Your task to perform on an android device: Is it going to rain tomorrow? Image 0: 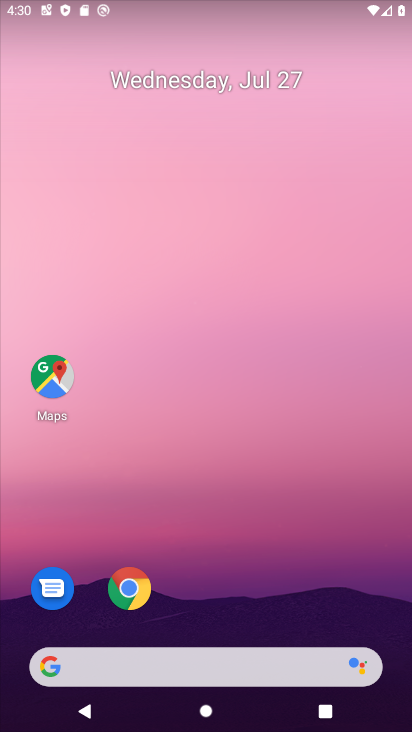
Step 0: drag from (220, 656) to (219, 61)
Your task to perform on an android device: Is it going to rain tomorrow? Image 1: 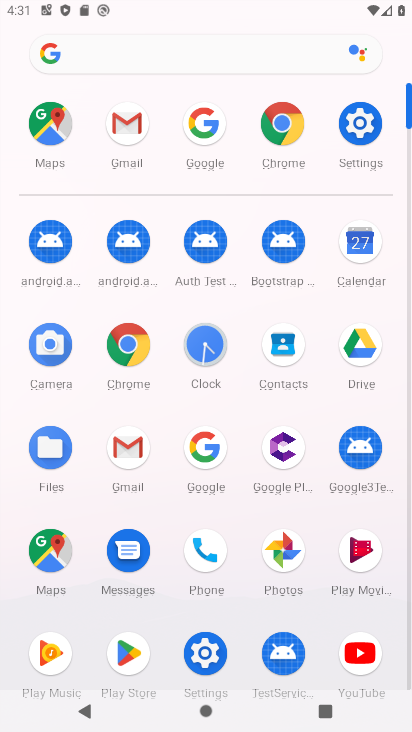
Step 1: click (198, 441)
Your task to perform on an android device: Is it going to rain tomorrow? Image 2: 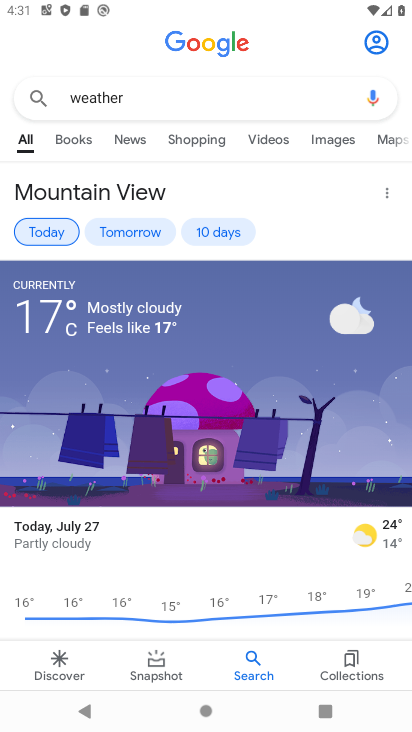
Step 2: click (126, 223)
Your task to perform on an android device: Is it going to rain tomorrow? Image 3: 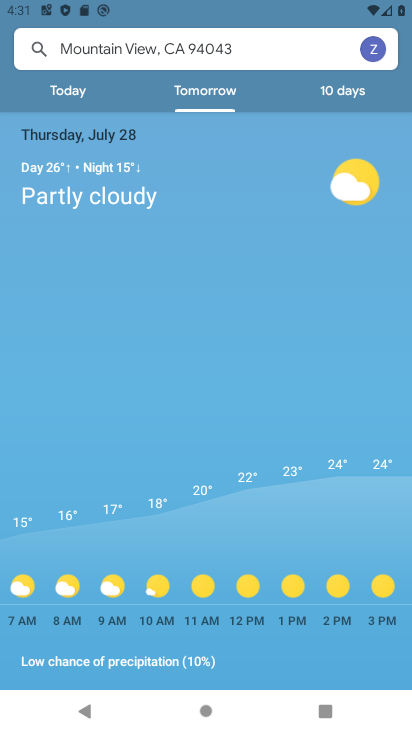
Step 3: task complete